Your task to perform on an android device: turn off location history Image 0: 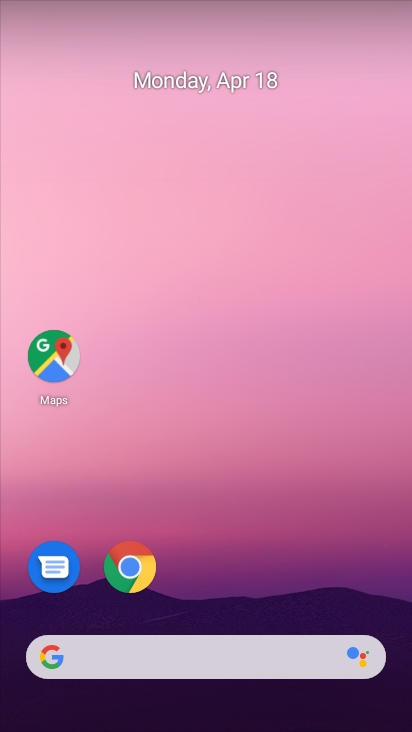
Step 0: drag from (263, 508) to (240, 5)
Your task to perform on an android device: turn off location history Image 1: 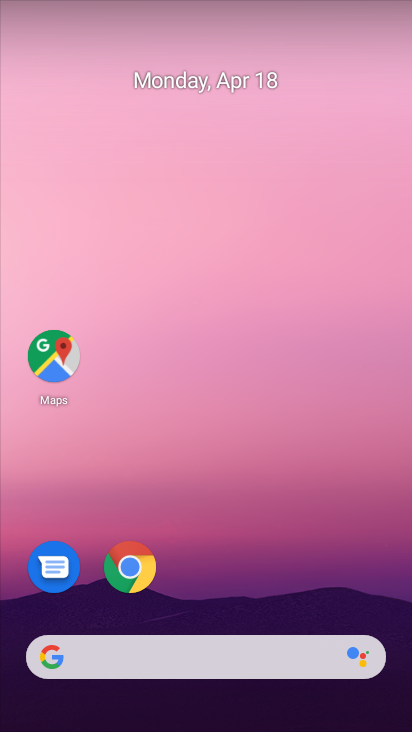
Step 1: drag from (291, 607) to (295, 228)
Your task to perform on an android device: turn off location history Image 2: 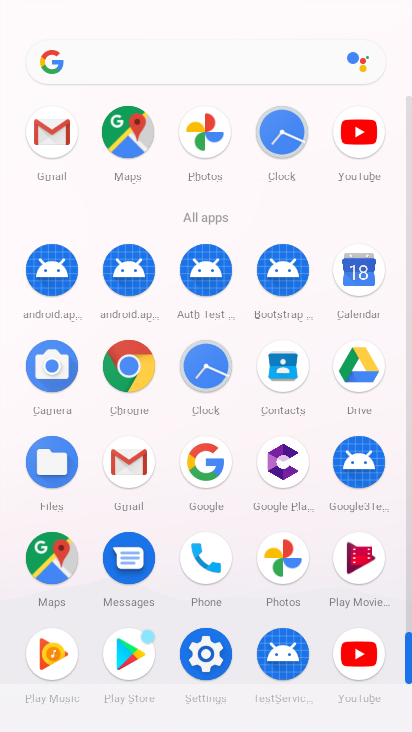
Step 2: click (208, 655)
Your task to perform on an android device: turn off location history Image 3: 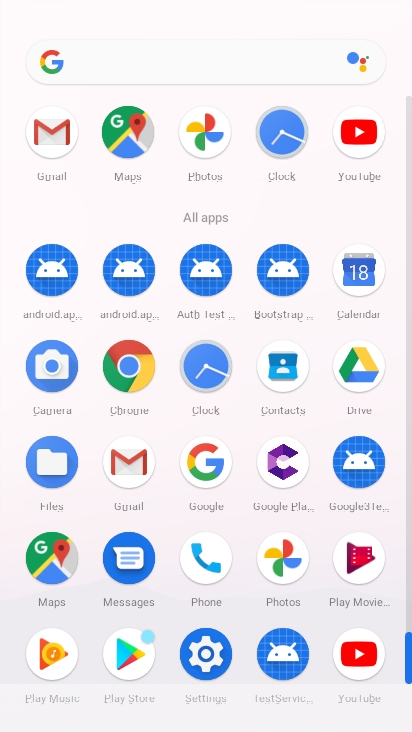
Step 3: click (131, 126)
Your task to perform on an android device: turn off location history Image 4: 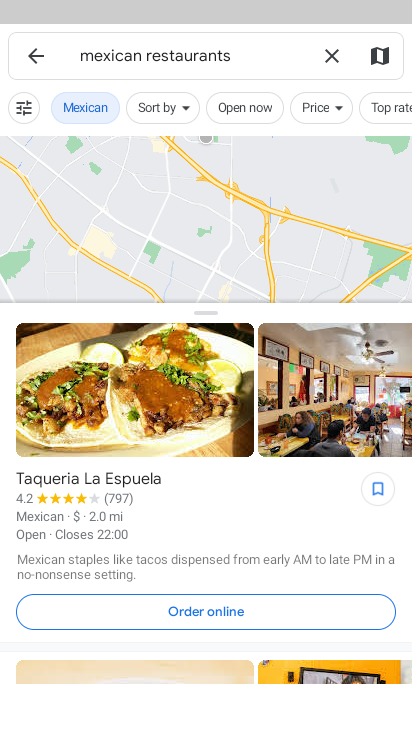
Step 4: click (26, 53)
Your task to perform on an android device: turn off location history Image 5: 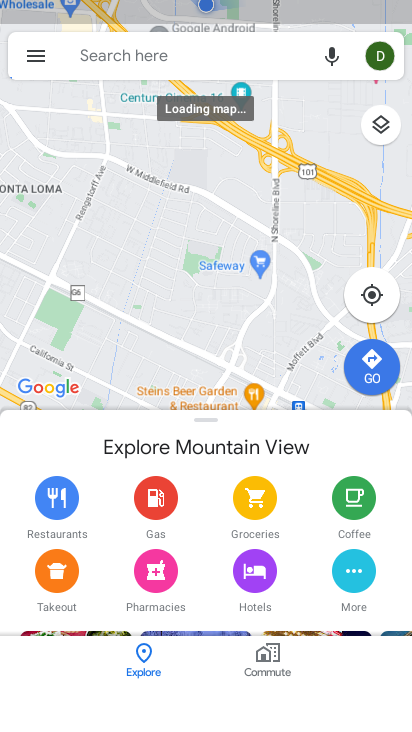
Step 5: click (35, 63)
Your task to perform on an android device: turn off location history Image 6: 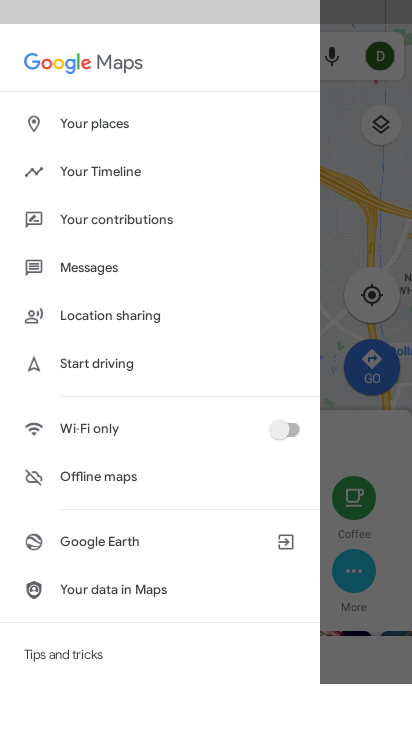
Step 6: click (73, 176)
Your task to perform on an android device: turn off location history Image 7: 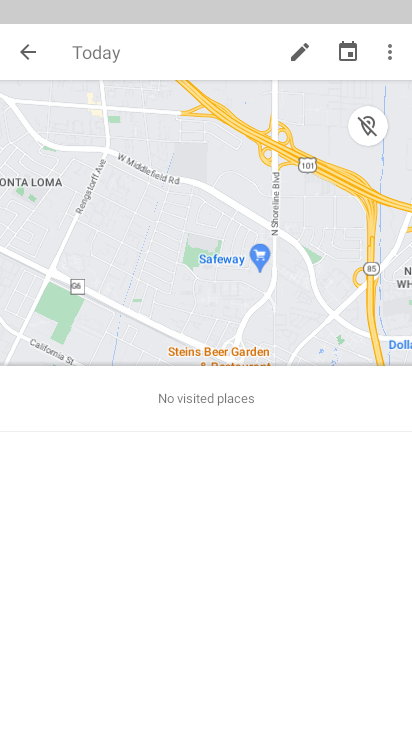
Step 7: click (383, 52)
Your task to perform on an android device: turn off location history Image 8: 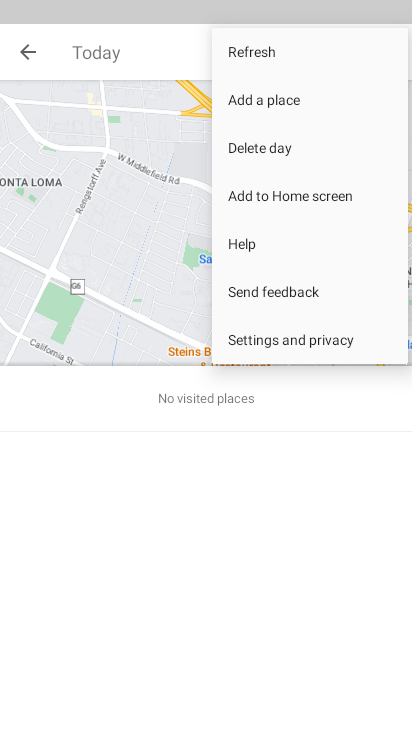
Step 8: click (281, 330)
Your task to perform on an android device: turn off location history Image 9: 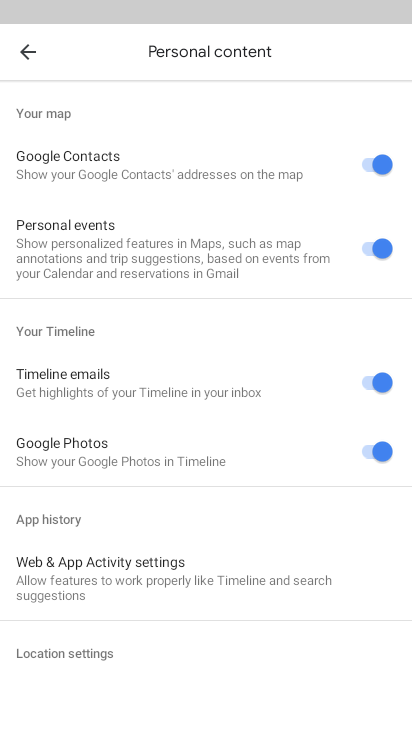
Step 9: drag from (223, 656) to (194, 372)
Your task to perform on an android device: turn off location history Image 10: 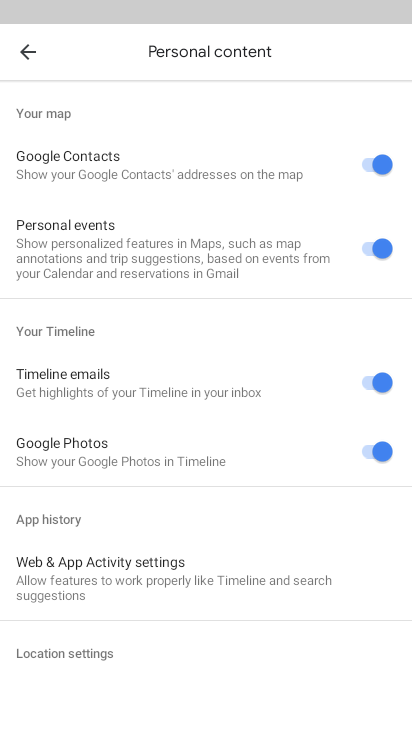
Step 10: drag from (198, 560) to (133, 246)
Your task to perform on an android device: turn off location history Image 11: 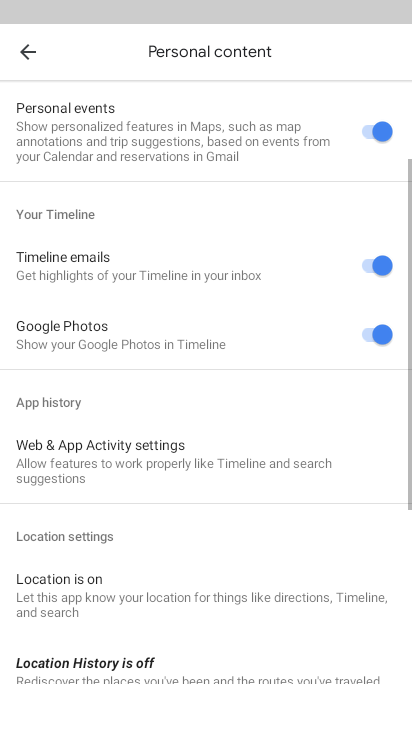
Step 11: drag from (185, 581) to (179, 262)
Your task to perform on an android device: turn off location history Image 12: 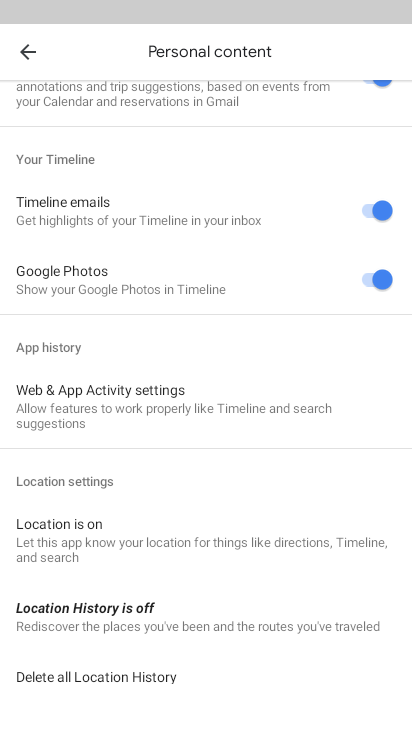
Step 12: click (95, 612)
Your task to perform on an android device: turn off location history Image 13: 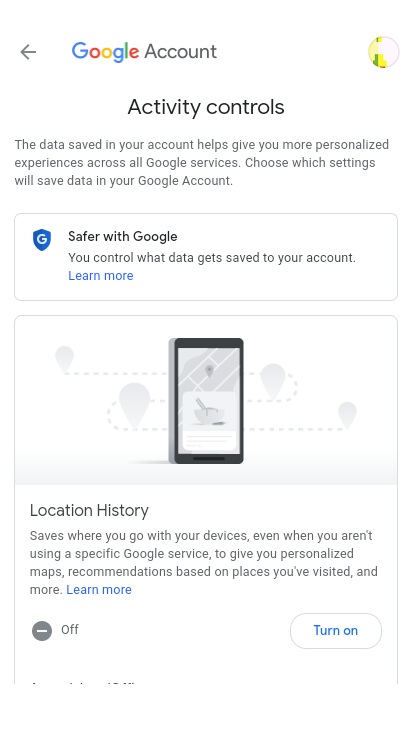
Step 13: task complete